Your task to perform on an android device: move a message to another label in the gmail app Image 0: 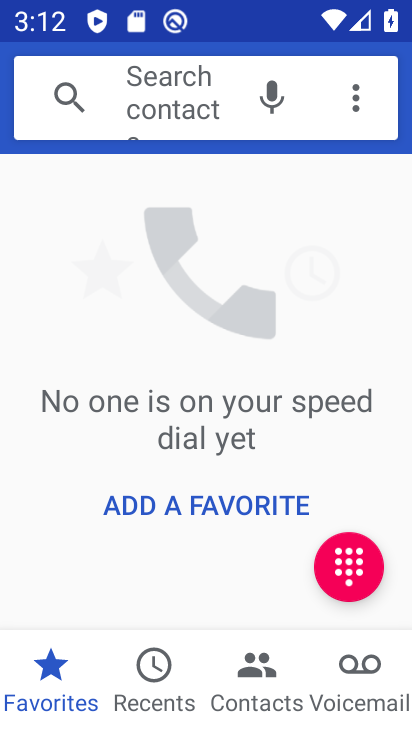
Step 0: press back button
Your task to perform on an android device: move a message to another label in the gmail app Image 1: 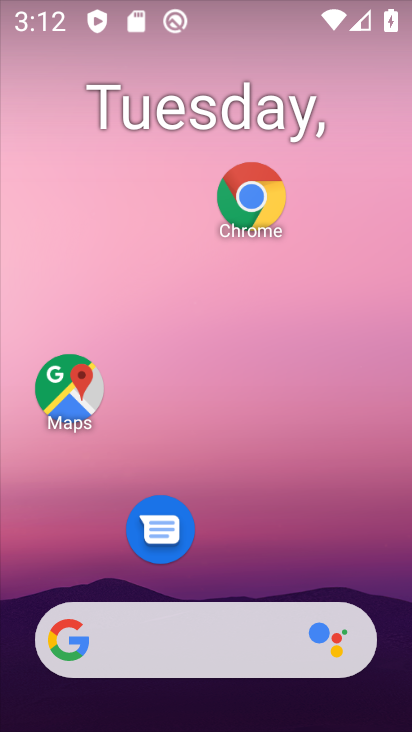
Step 1: drag from (217, 602) to (339, 196)
Your task to perform on an android device: move a message to another label in the gmail app Image 2: 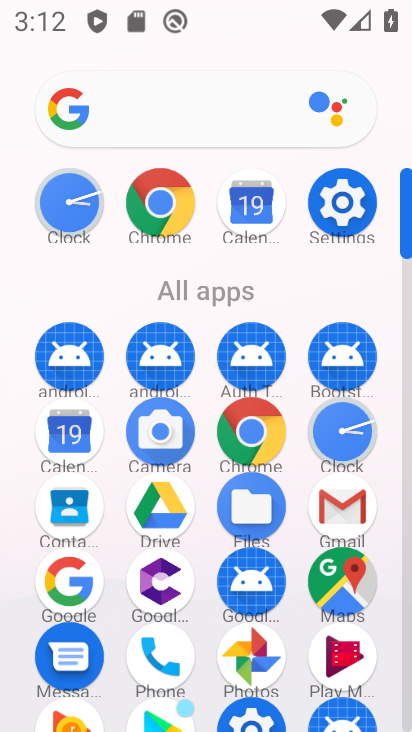
Step 2: click (333, 509)
Your task to perform on an android device: move a message to another label in the gmail app Image 3: 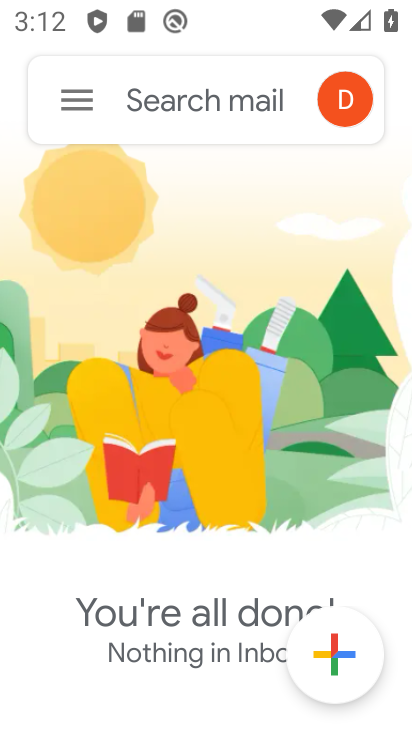
Step 3: task complete